Your task to perform on an android device: all mails in gmail Image 0: 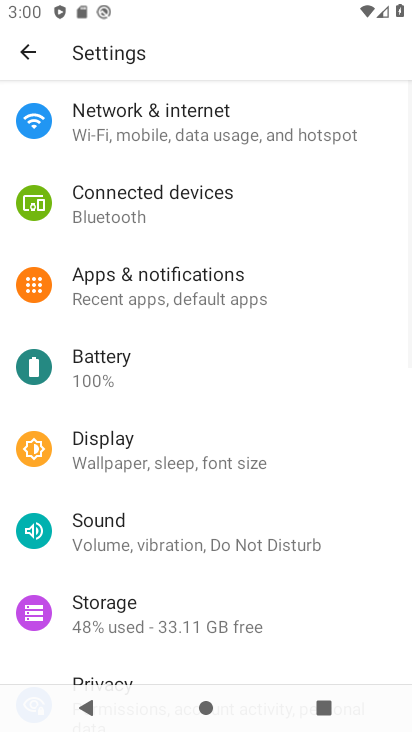
Step 0: press home button
Your task to perform on an android device: all mails in gmail Image 1: 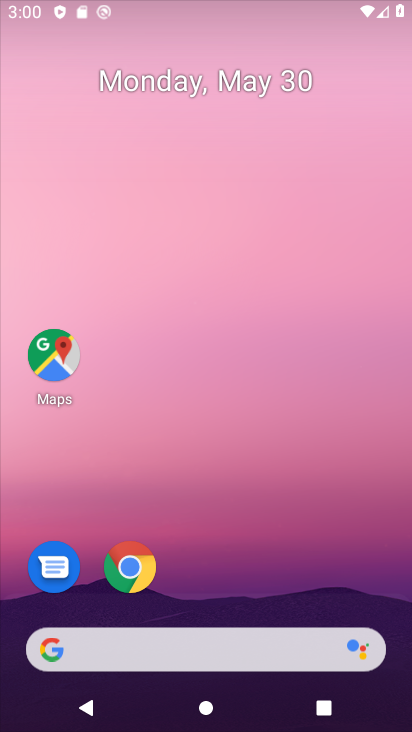
Step 1: drag from (210, 602) to (198, 28)
Your task to perform on an android device: all mails in gmail Image 2: 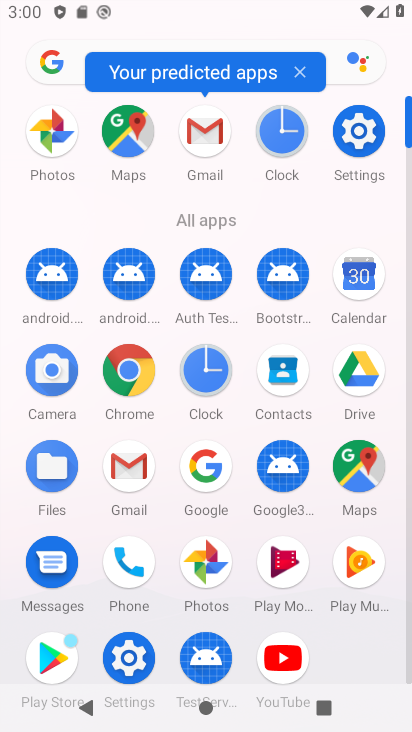
Step 2: click (202, 133)
Your task to perform on an android device: all mails in gmail Image 3: 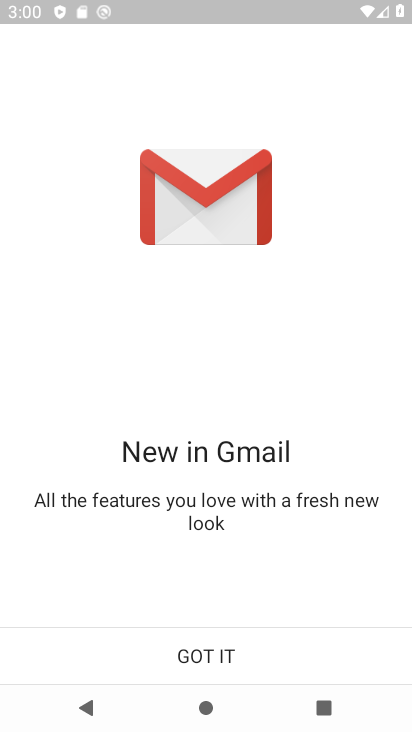
Step 3: click (176, 652)
Your task to perform on an android device: all mails in gmail Image 4: 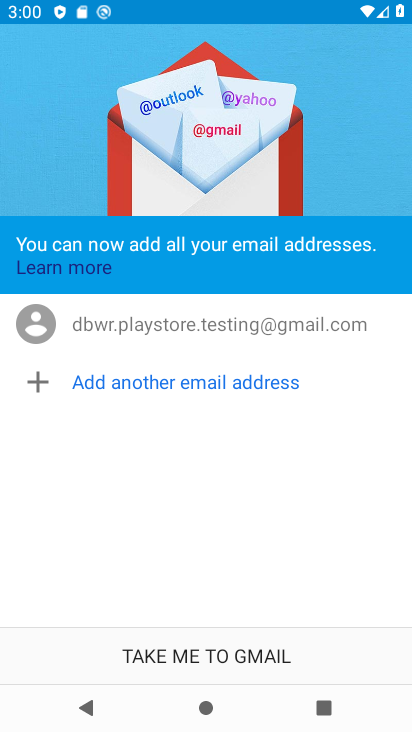
Step 4: click (178, 650)
Your task to perform on an android device: all mails in gmail Image 5: 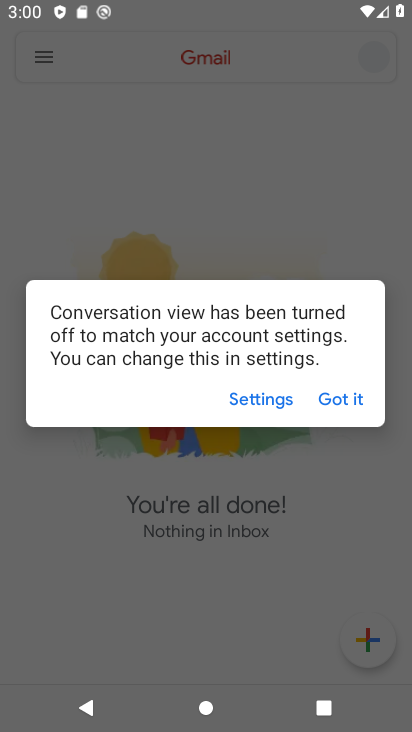
Step 5: click (352, 399)
Your task to perform on an android device: all mails in gmail Image 6: 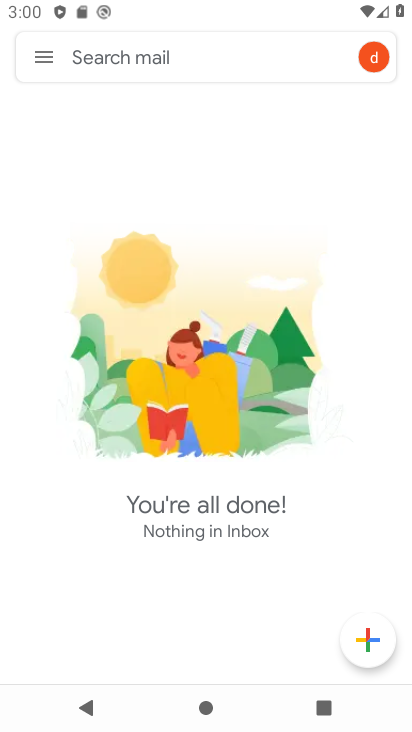
Step 6: click (47, 60)
Your task to perform on an android device: all mails in gmail Image 7: 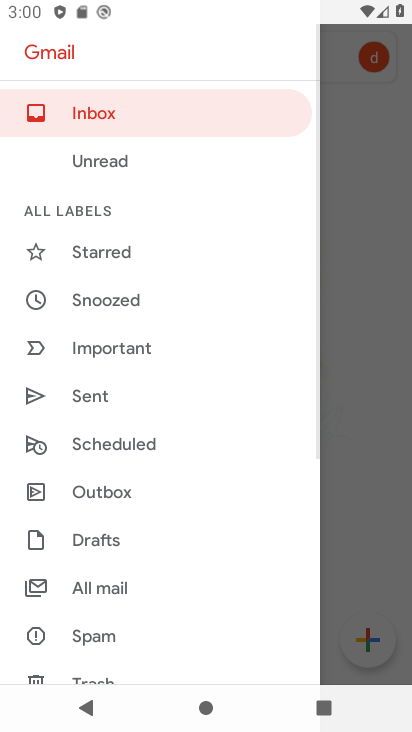
Step 7: click (135, 584)
Your task to perform on an android device: all mails in gmail Image 8: 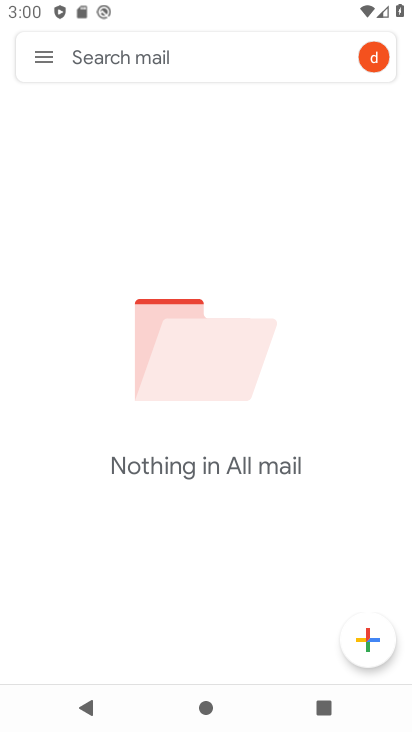
Step 8: task complete